Your task to perform on an android device: toggle wifi Image 0: 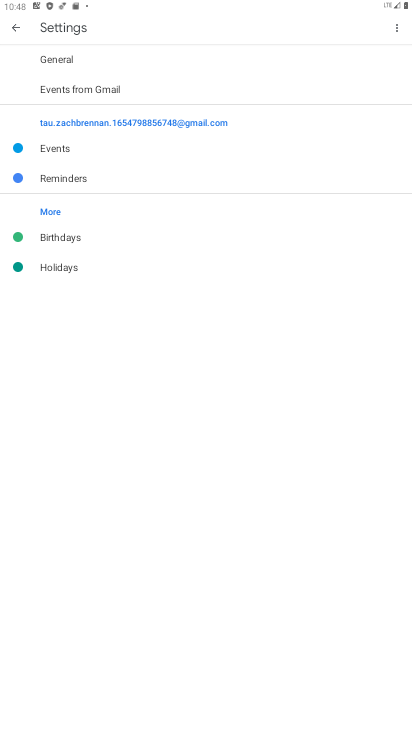
Step 0: press home button
Your task to perform on an android device: toggle wifi Image 1: 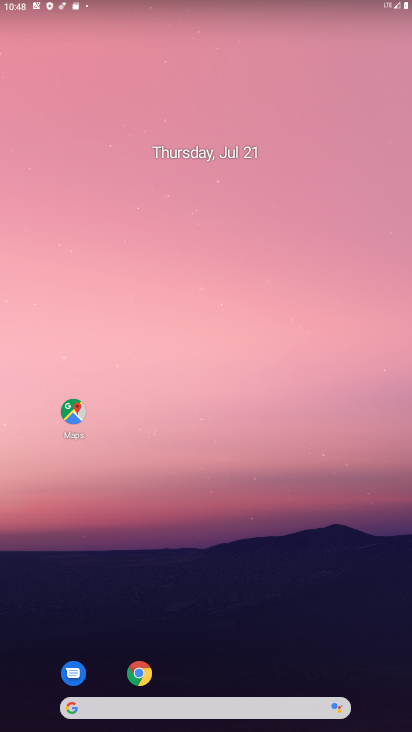
Step 1: drag from (221, 654) to (219, 209)
Your task to perform on an android device: toggle wifi Image 2: 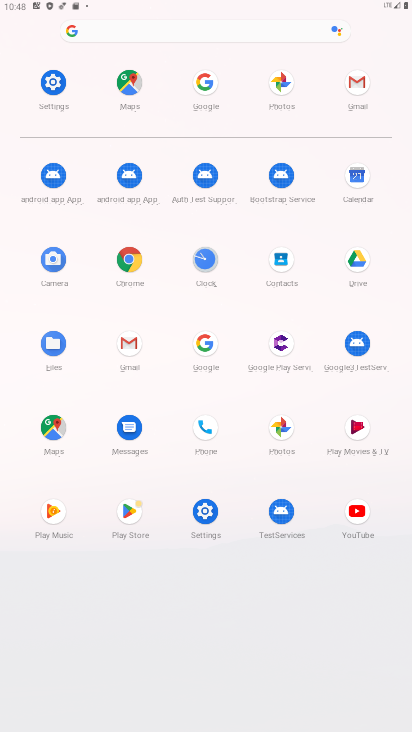
Step 2: click (73, 79)
Your task to perform on an android device: toggle wifi Image 3: 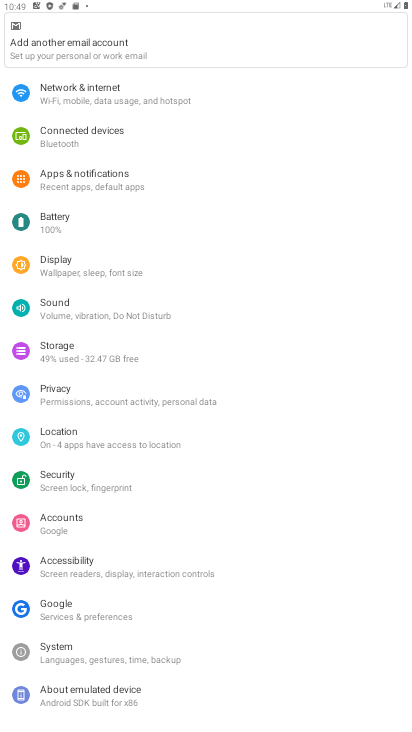
Step 3: click (133, 91)
Your task to perform on an android device: toggle wifi Image 4: 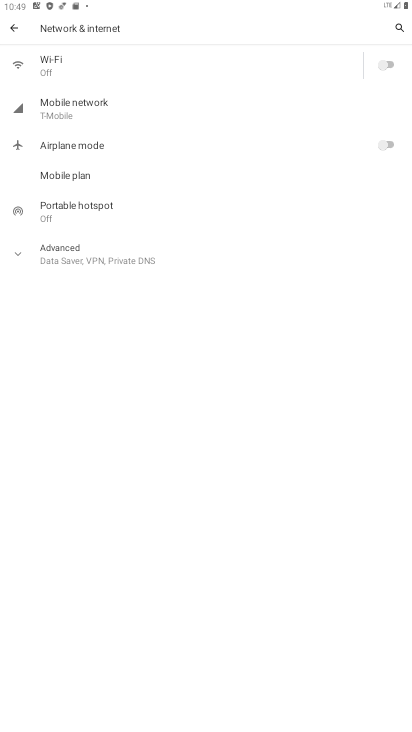
Step 4: click (76, 63)
Your task to perform on an android device: toggle wifi Image 5: 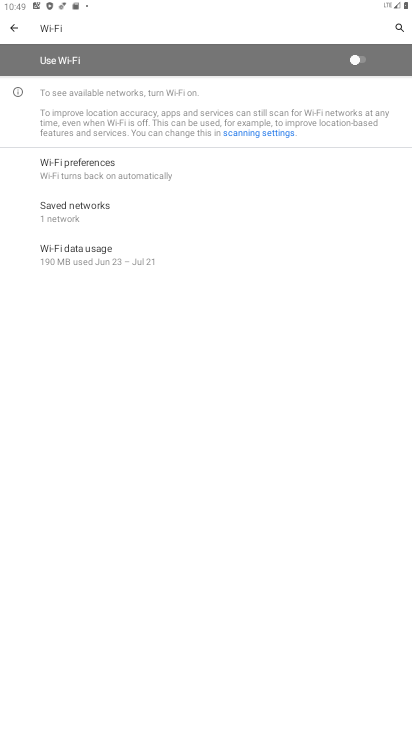
Step 5: click (371, 59)
Your task to perform on an android device: toggle wifi Image 6: 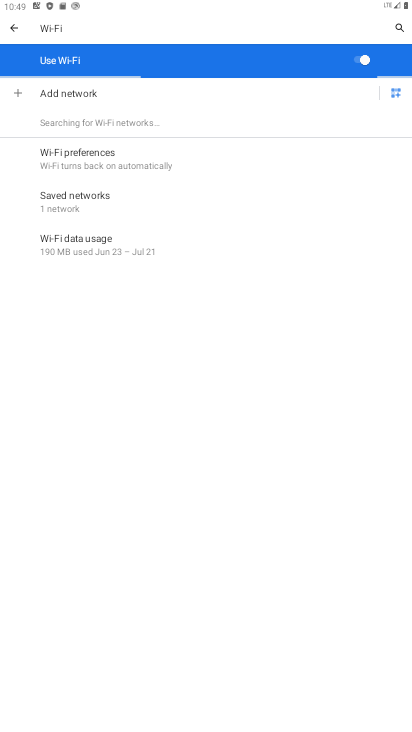
Step 6: task complete